Your task to perform on an android device: check storage Image 0: 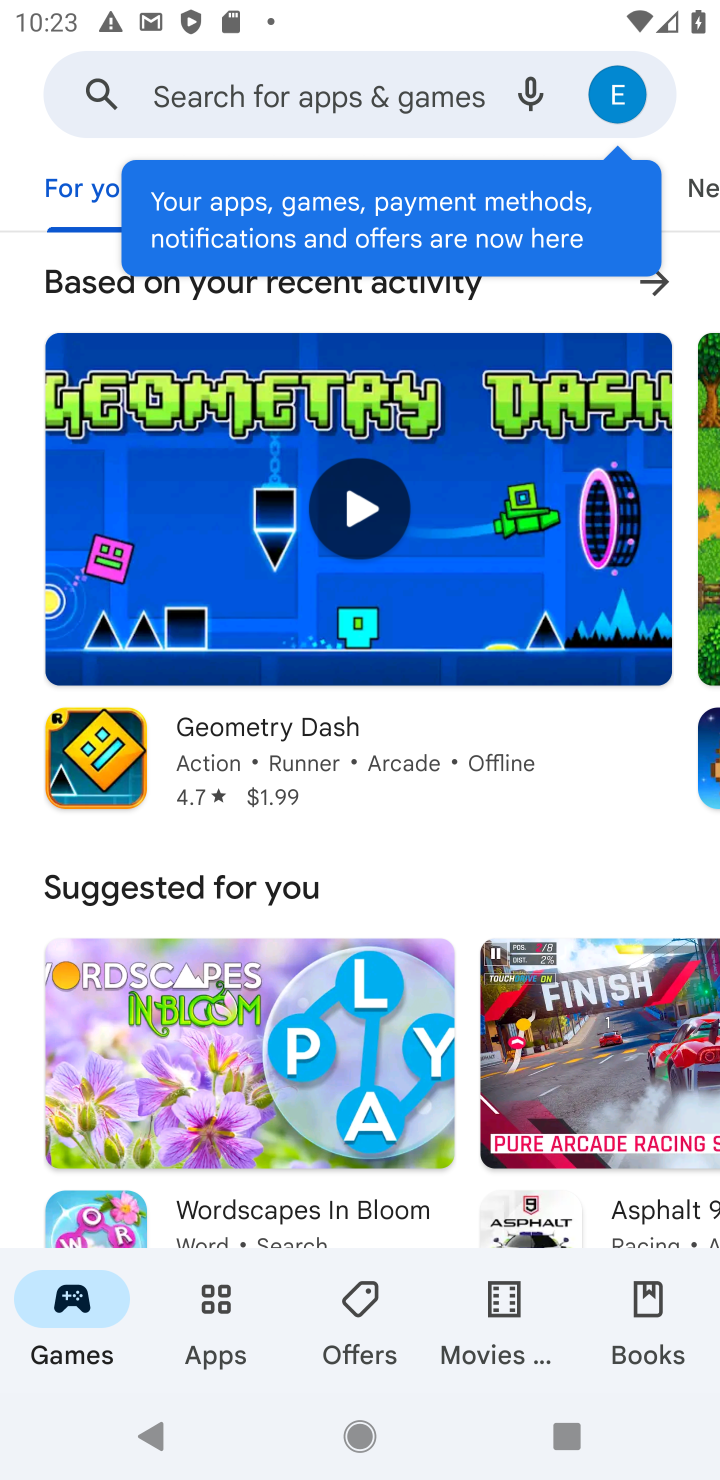
Step 0: press home button
Your task to perform on an android device: check storage Image 1: 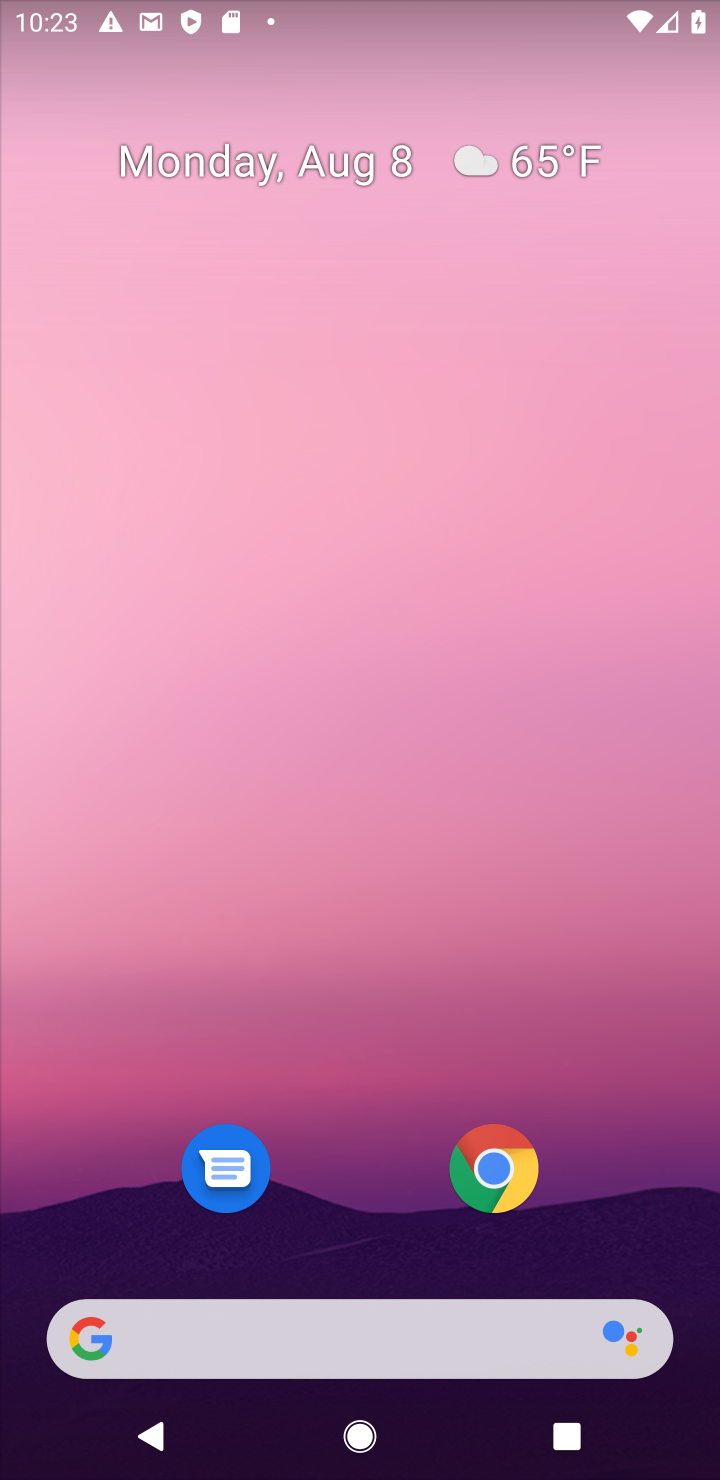
Step 1: press home button
Your task to perform on an android device: check storage Image 2: 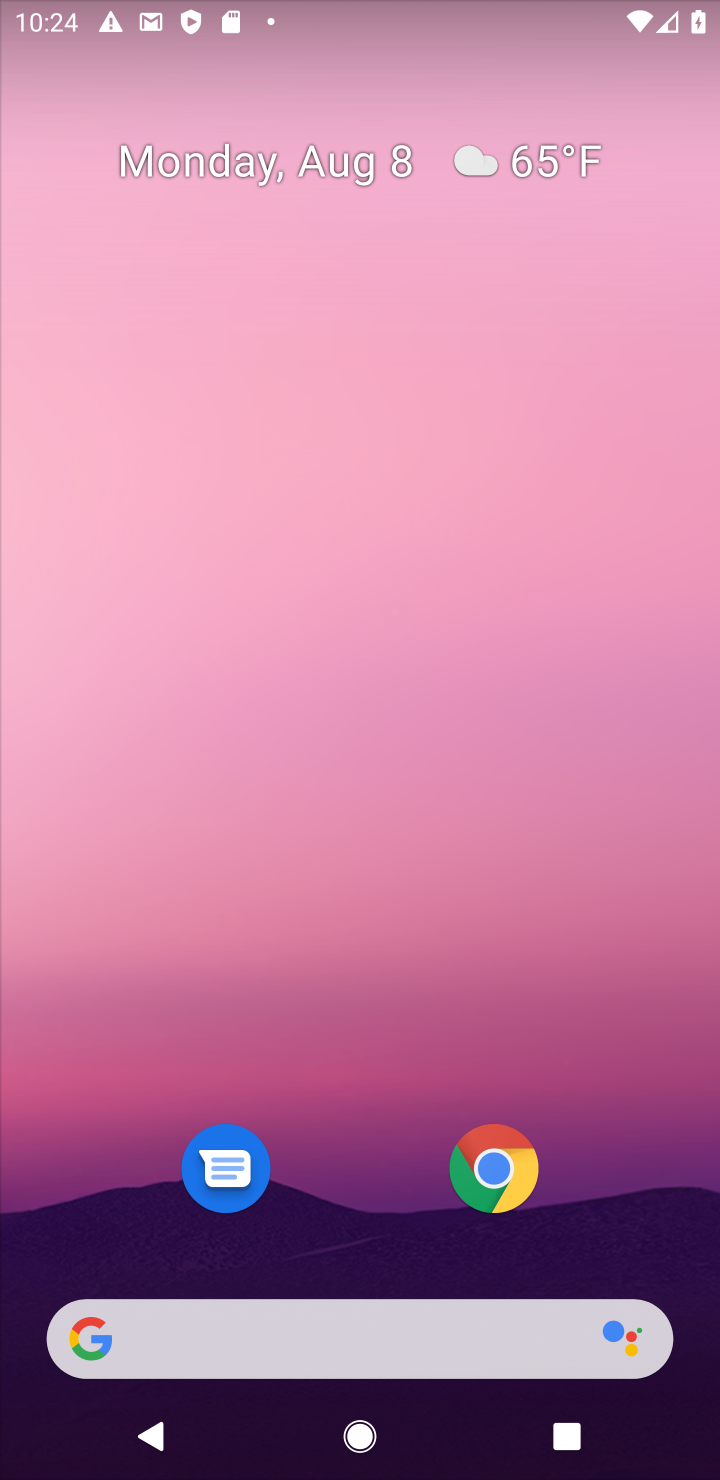
Step 2: drag from (586, 548) to (649, 373)
Your task to perform on an android device: check storage Image 3: 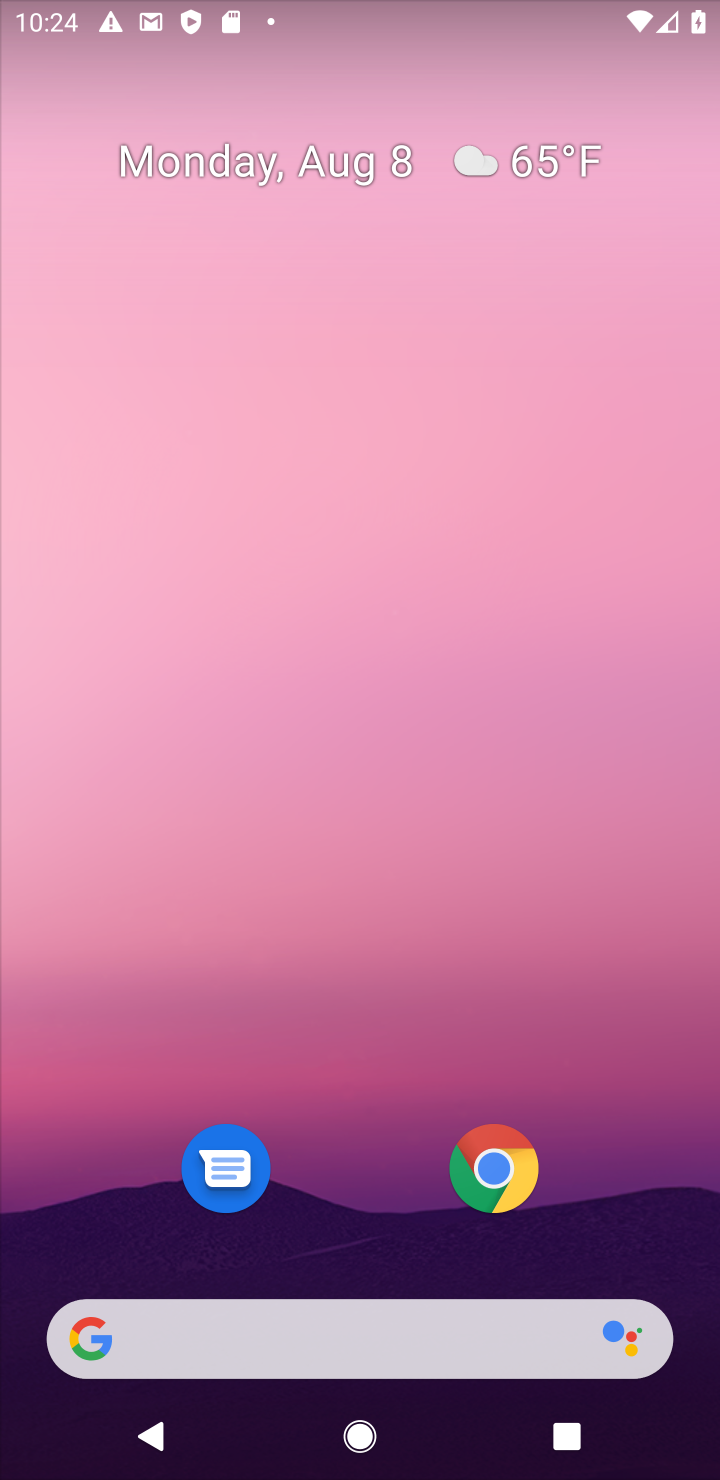
Step 3: drag from (392, 486) to (432, 287)
Your task to perform on an android device: check storage Image 4: 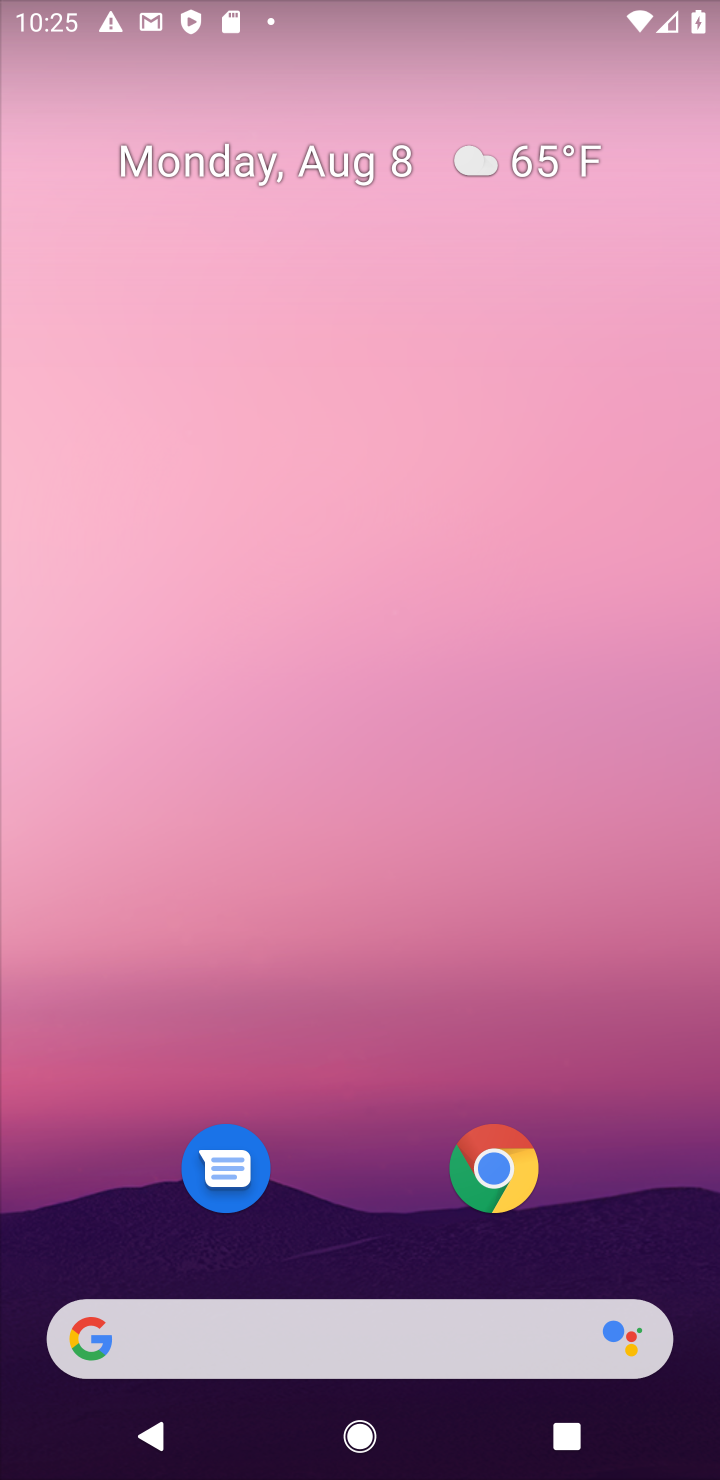
Step 4: drag from (450, 907) to (446, 773)
Your task to perform on an android device: check storage Image 5: 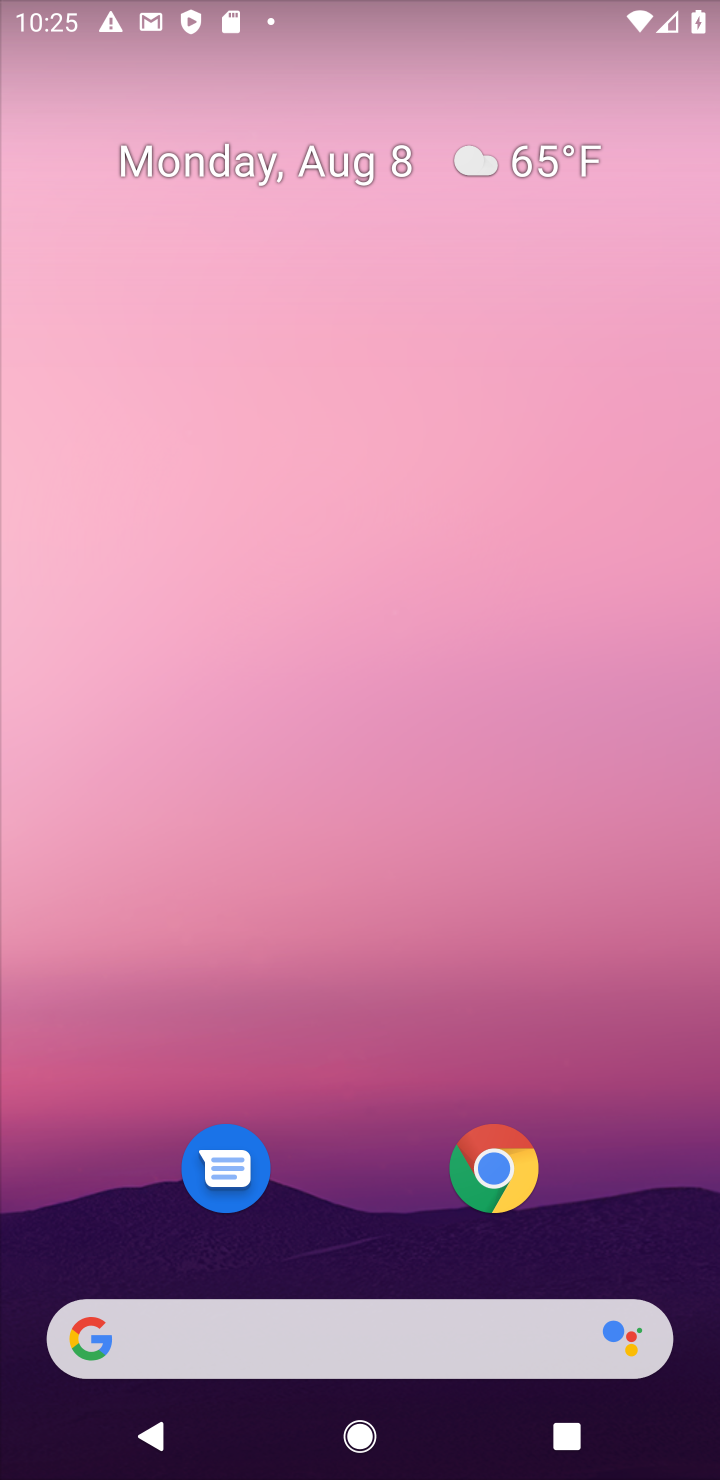
Step 5: drag from (547, 1351) to (570, 540)
Your task to perform on an android device: check storage Image 6: 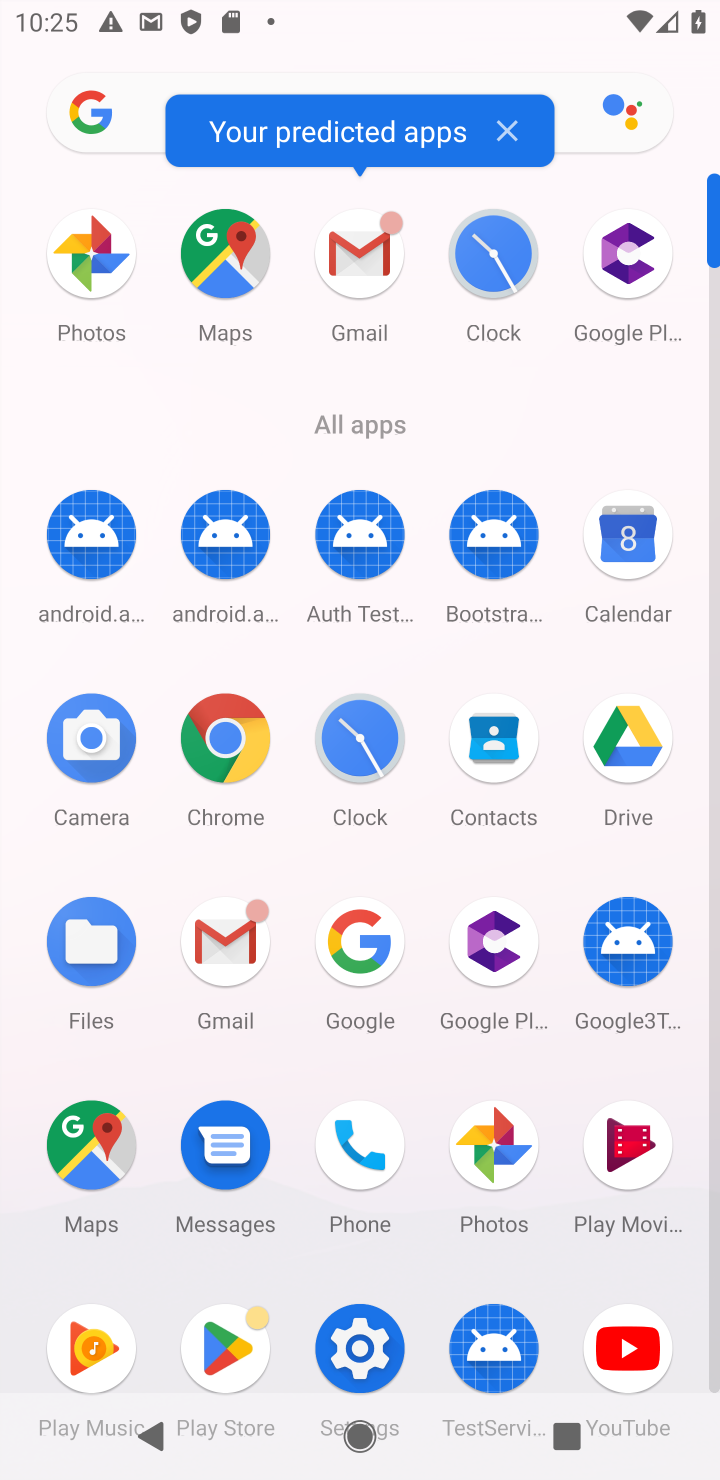
Step 6: click (357, 1355)
Your task to perform on an android device: check storage Image 7: 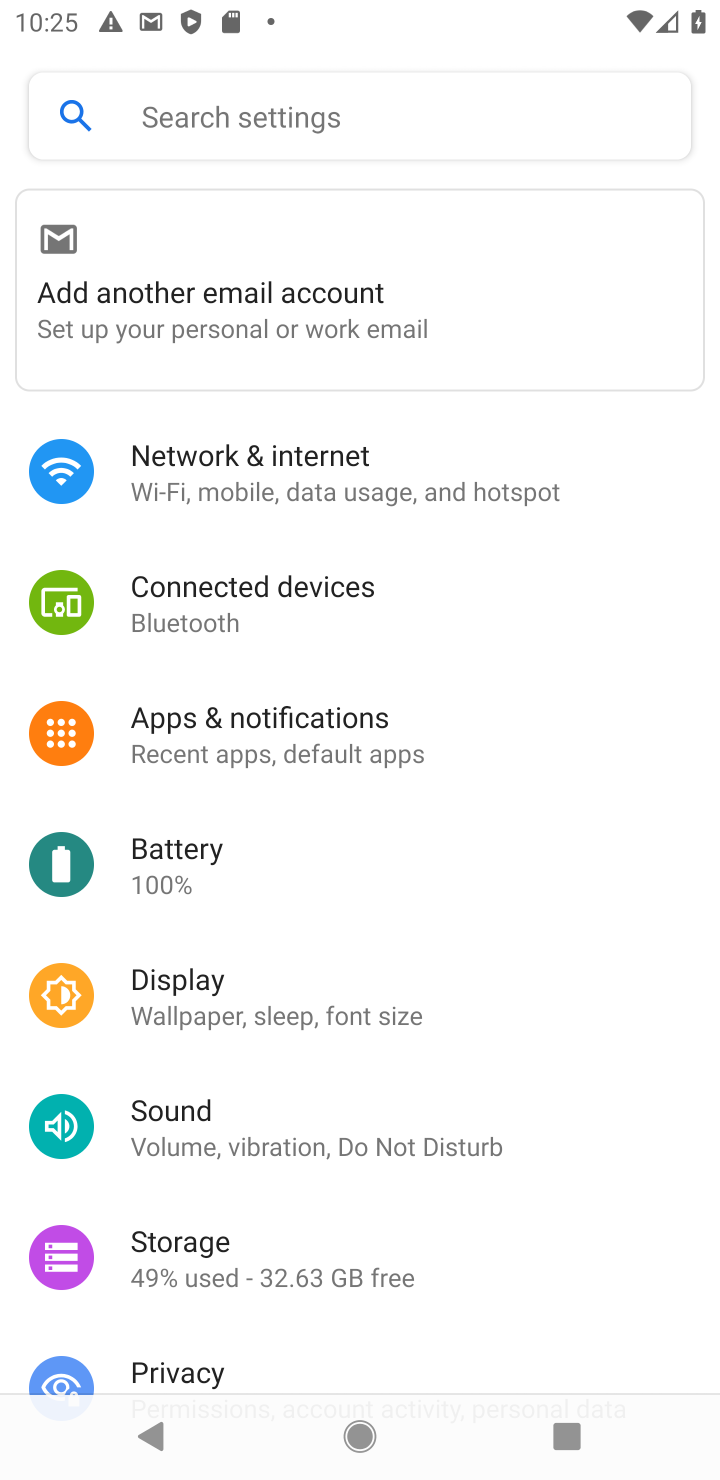
Step 7: click (428, 1255)
Your task to perform on an android device: check storage Image 8: 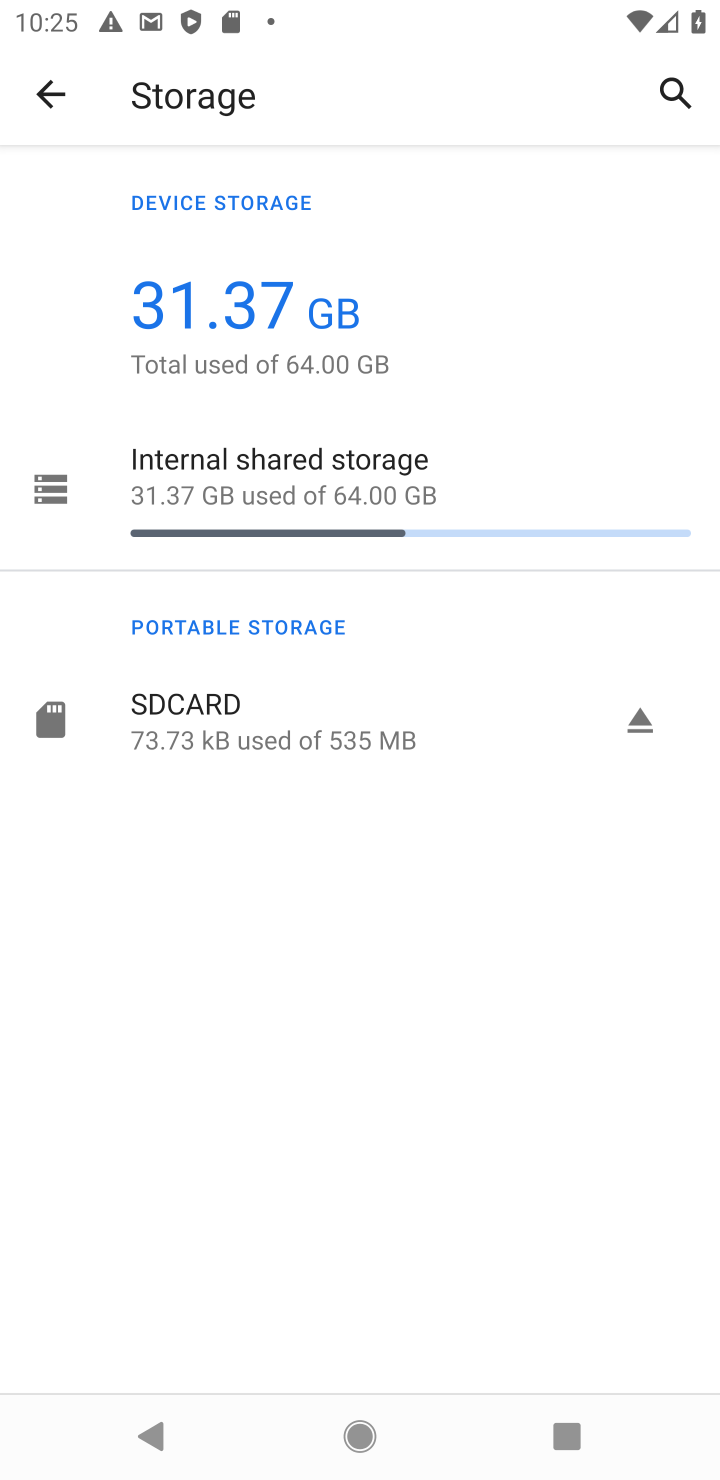
Step 8: task complete